Your task to perform on an android device: Search for razer blade on ebay.com, select the first entry, and add it to the cart. Image 0: 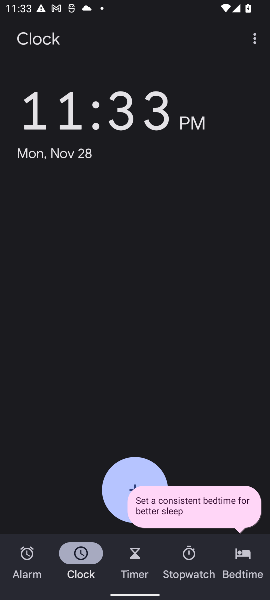
Step 0: press home button
Your task to perform on an android device: Search for razer blade on ebay.com, select the first entry, and add it to the cart. Image 1: 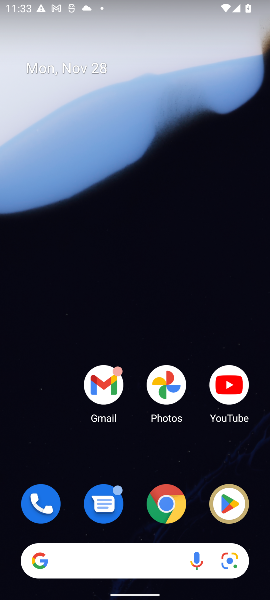
Step 1: click (160, 504)
Your task to perform on an android device: Search for razer blade on ebay.com, select the first entry, and add it to the cart. Image 2: 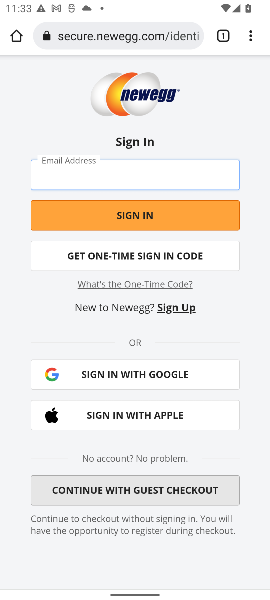
Step 2: click (86, 39)
Your task to perform on an android device: Search for razer blade on ebay.com, select the first entry, and add it to the cart. Image 3: 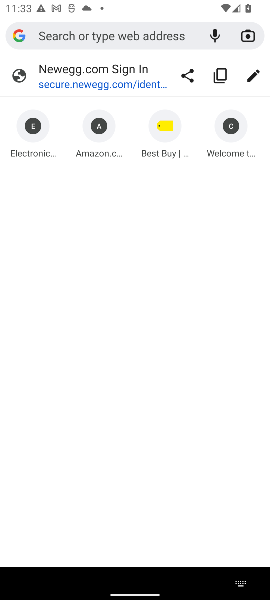
Step 3: type "ebay.com"
Your task to perform on an android device: Search for razer blade on ebay.com, select the first entry, and add it to the cart. Image 4: 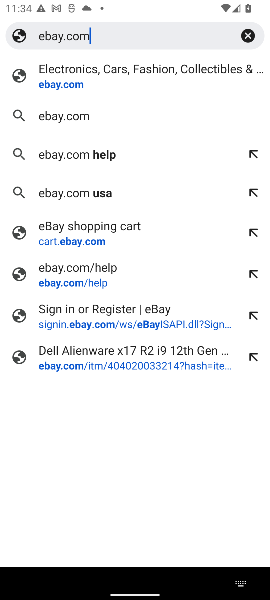
Step 4: click (54, 85)
Your task to perform on an android device: Search for razer blade on ebay.com, select the first entry, and add it to the cart. Image 5: 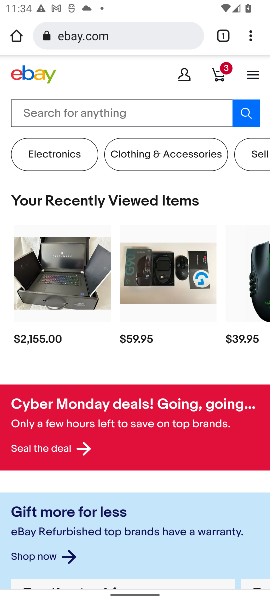
Step 5: click (40, 115)
Your task to perform on an android device: Search for razer blade on ebay.com, select the first entry, and add it to the cart. Image 6: 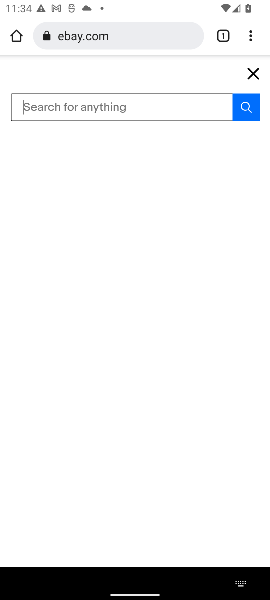
Step 6: type "razer blade"
Your task to perform on an android device: Search for razer blade on ebay.com, select the first entry, and add it to the cart. Image 7: 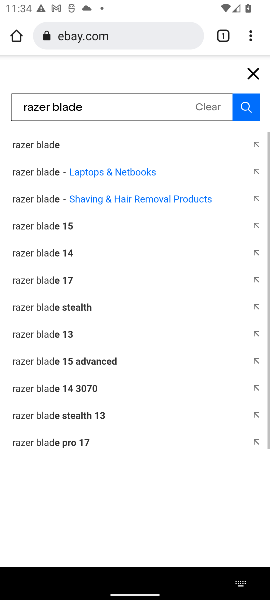
Step 7: click (42, 148)
Your task to perform on an android device: Search for razer blade on ebay.com, select the first entry, and add it to the cart. Image 8: 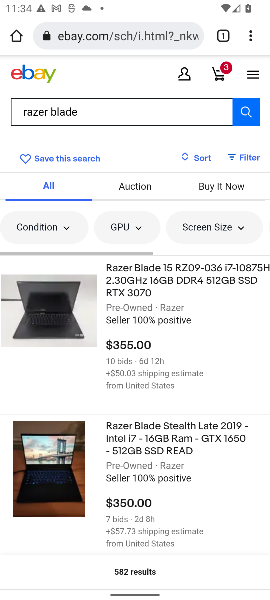
Step 8: click (129, 299)
Your task to perform on an android device: Search for razer blade on ebay.com, select the first entry, and add it to the cart. Image 9: 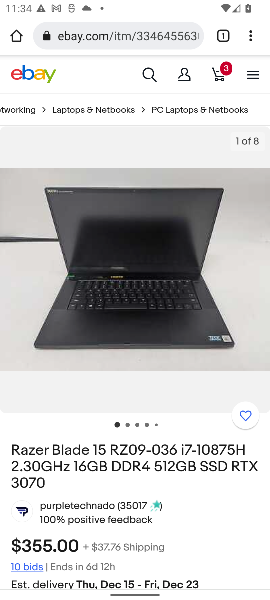
Step 9: task complete